Your task to perform on an android device: Go to Reddit.com Image 0: 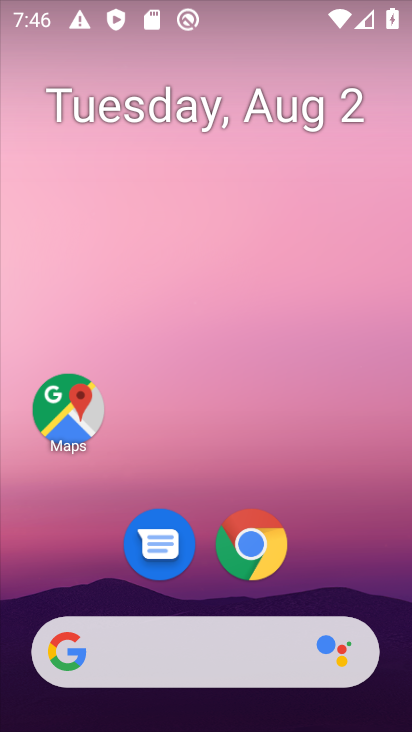
Step 0: drag from (172, 623) to (180, 259)
Your task to perform on an android device: Go to Reddit.com Image 1: 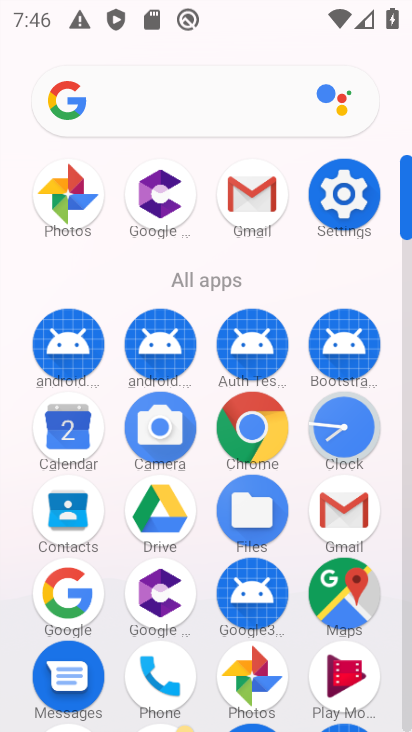
Step 1: click (54, 591)
Your task to perform on an android device: Go to Reddit.com Image 2: 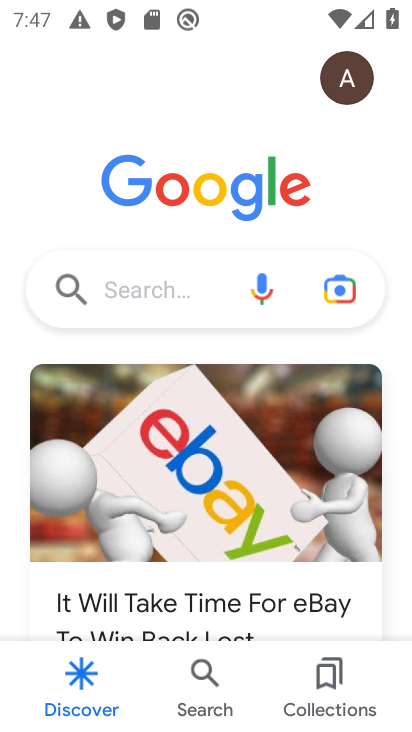
Step 2: click (173, 283)
Your task to perform on an android device: Go to Reddit.com Image 3: 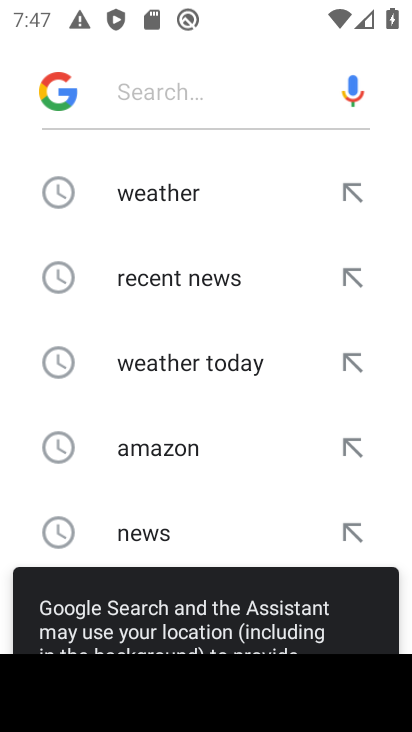
Step 3: drag from (191, 482) to (240, 49)
Your task to perform on an android device: Go to Reddit.com Image 4: 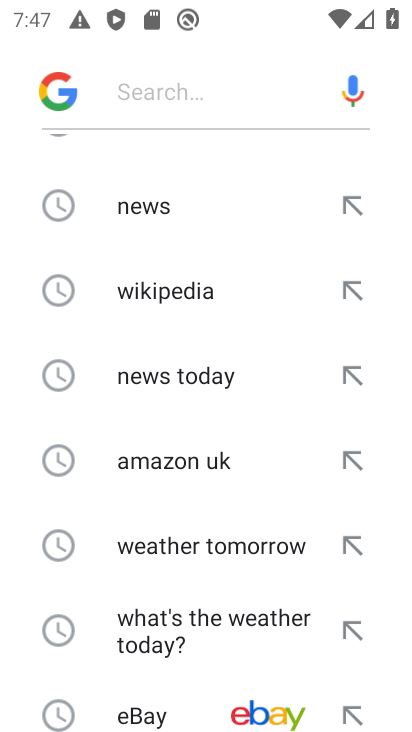
Step 4: drag from (184, 493) to (183, 189)
Your task to perform on an android device: Go to Reddit.com Image 5: 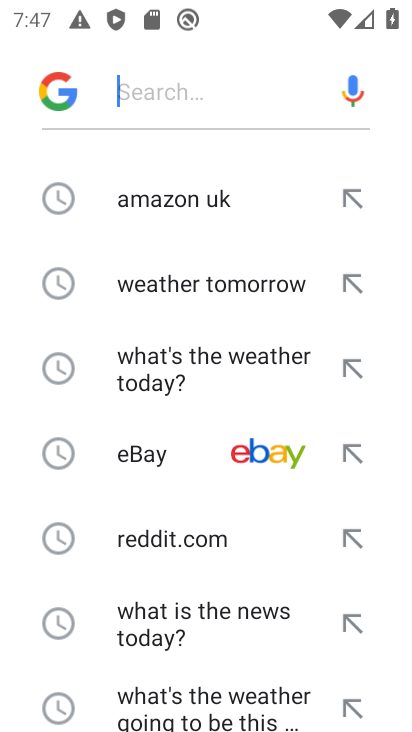
Step 5: click (119, 553)
Your task to perform on an android device: Go to Reddit.com Image 6: 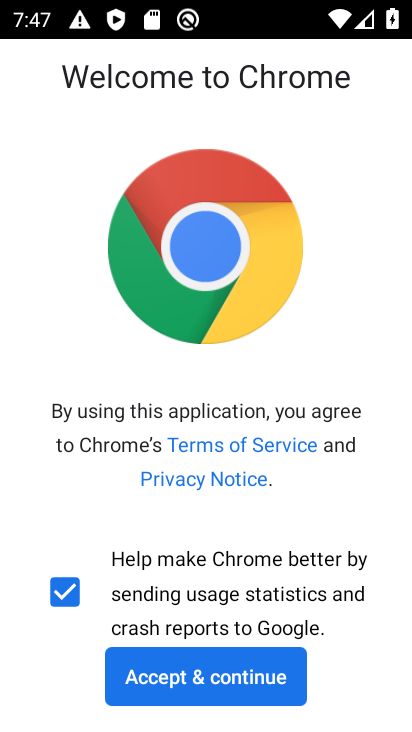
Step 6: click (160, 672)
Your task to perform on an android device: Go to Reddit.com Image 7: 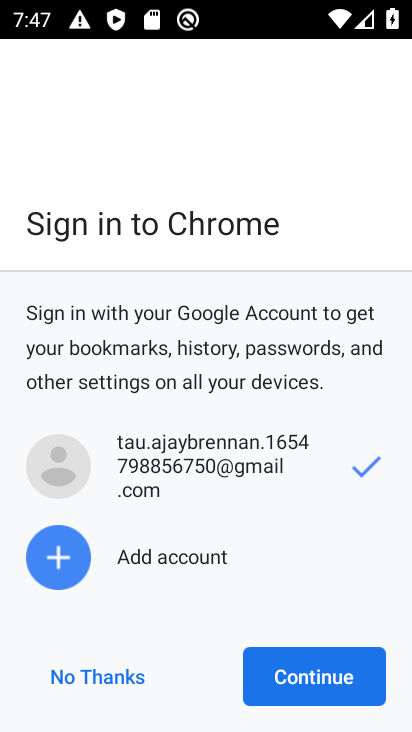
Step 7: click (320, 679)
Your task to perform on an android device: Go to Reddit.com Image 8: 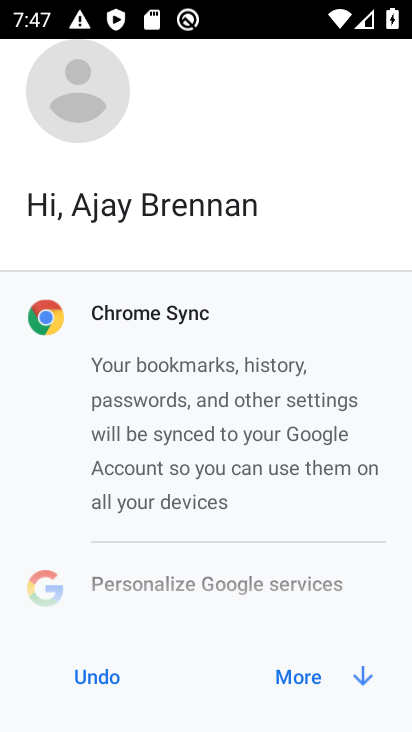
Step 8: click (320, 679)
Your task to perform on an android device: Go to Reddit.com Image 9: 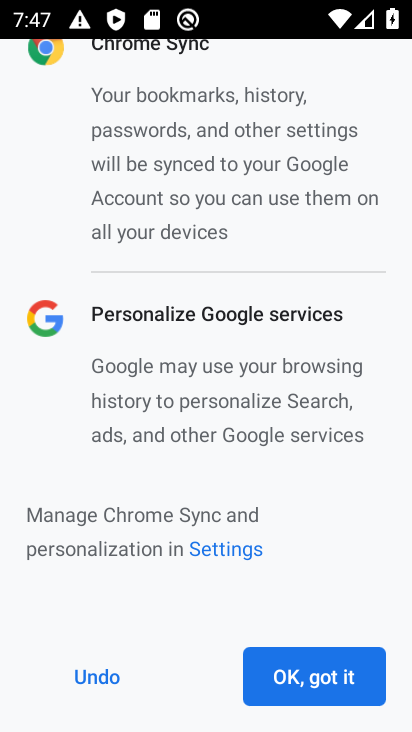
Step 9: click (320, 679)
Your task to perform on an android device: Go to Reddit.com Image 10: 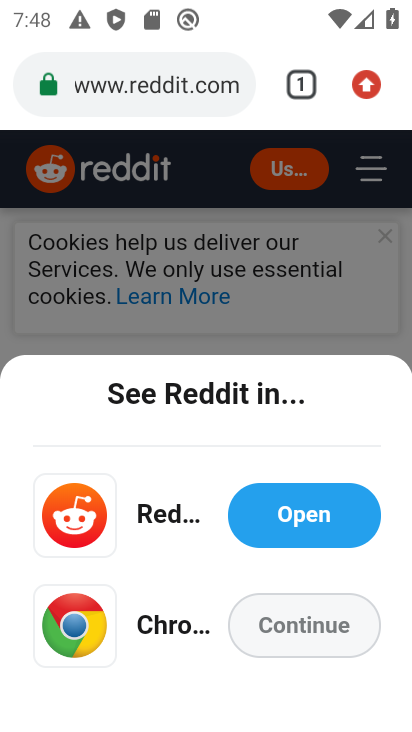
Step 10: click (287, 517)
Your task to perform on an android device: Go to Reddit.com Image 11: 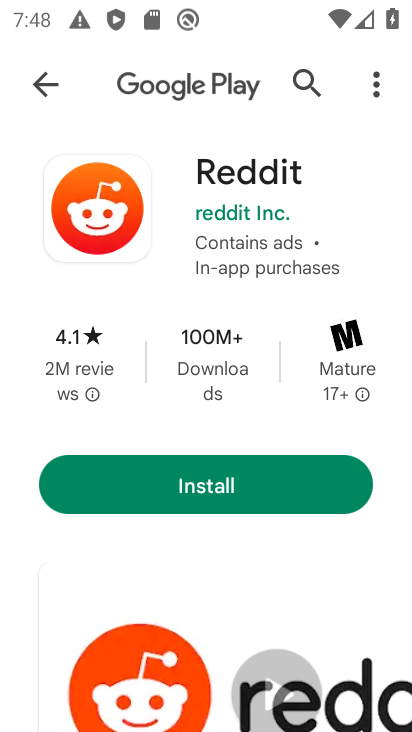
Step 11: task complete